Your task to perform on an android device: toggle location history Image 0: 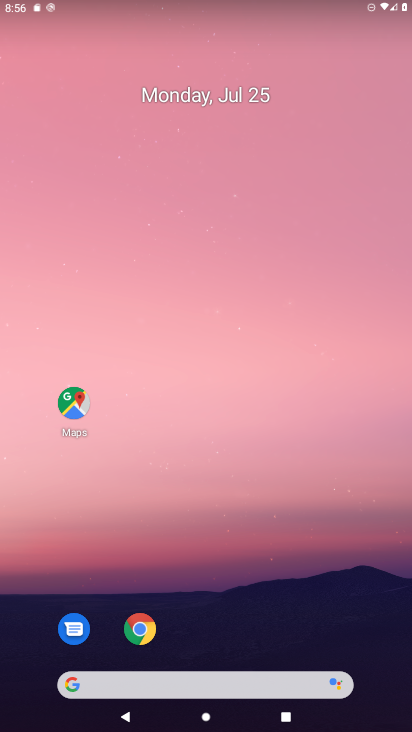
Step 0: click (69, 410)
Your task to perform on an android device: toggle location history Image 1: 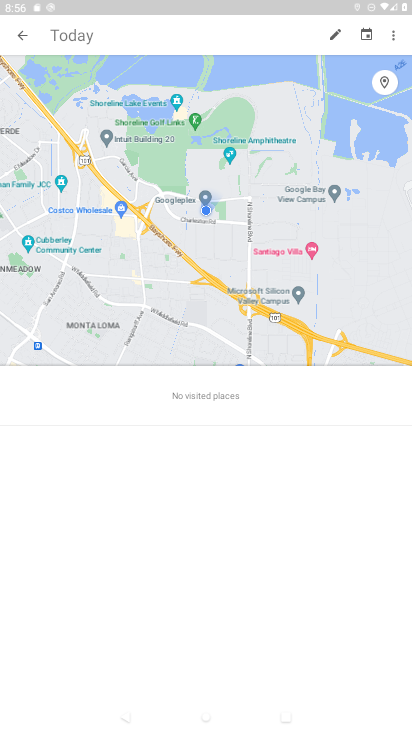
Step 1: click (394, 39)
Your task to perform on an android device: toggle location history Image 2: 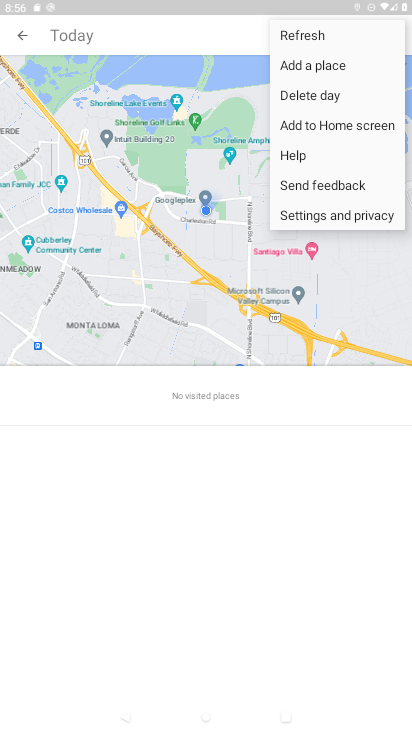
Step 2: click (315, 215)
Your task to perform on an android device: toggle location history Image 3: 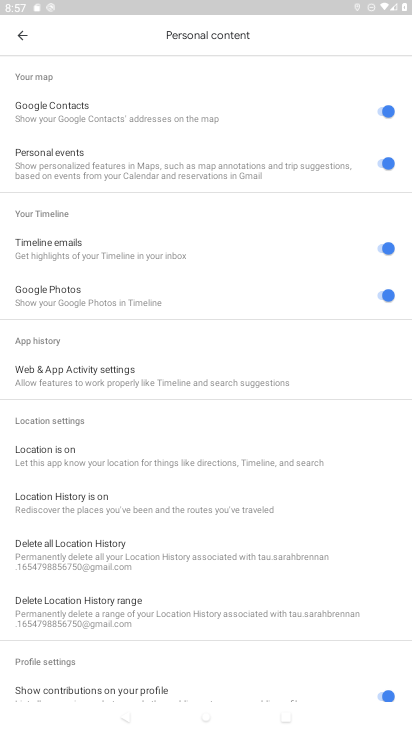
Step 3: click (83, 502)
Your task to perform on an android device: toggle location history Image 4: 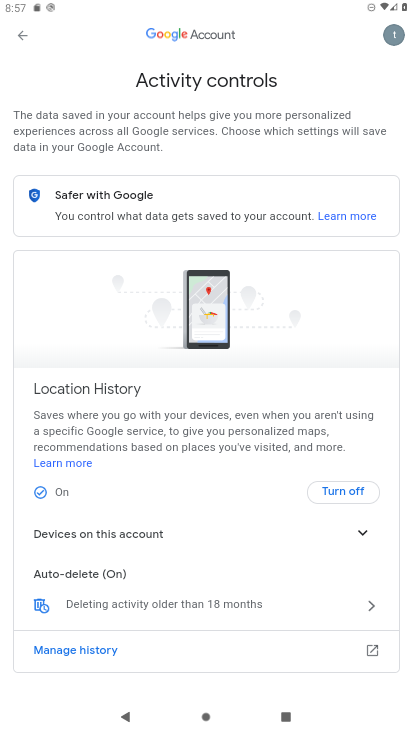
Step 4: click (332, 486)
Your task to perform on an android device: toggle location history Image 5: 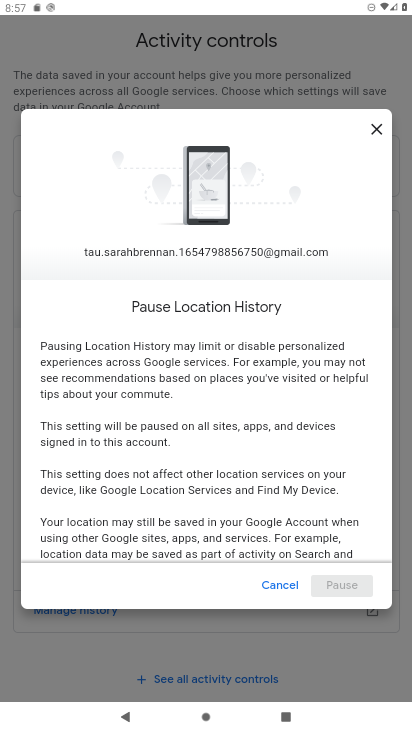
Step 5: drag from (306, 509) to (301, 171)
Your task to perform on an android device: toggle location history Image 6: 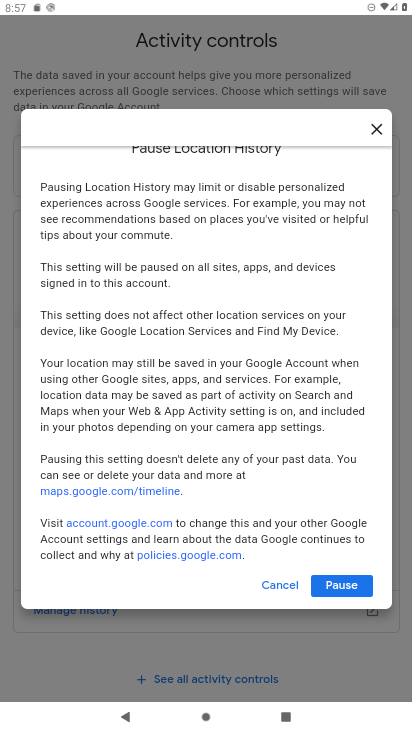
Step 6: drag from (221, 500) to (243, 301)
Your task to perform on an android device: toggle location history Image 7: 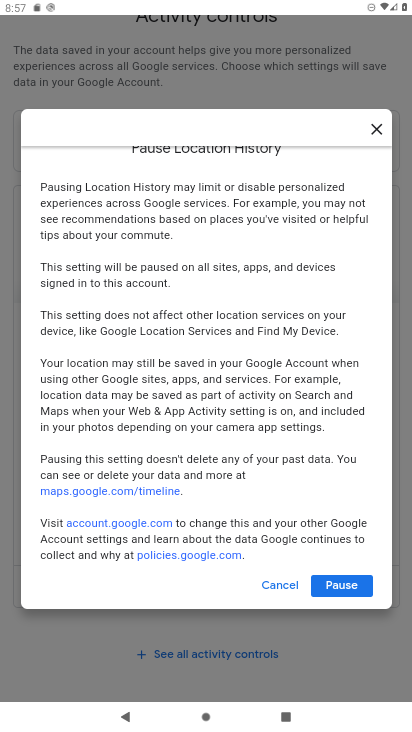
Step 7: click (326, 583)
Your task to perform on an android device: toggle location history Image 8: 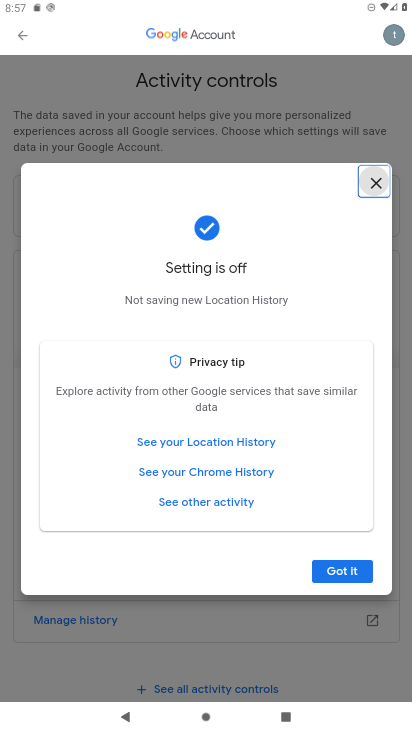
Step 8: click (347, 576)
Your task to perform on an android device: toggle location history Image 9: 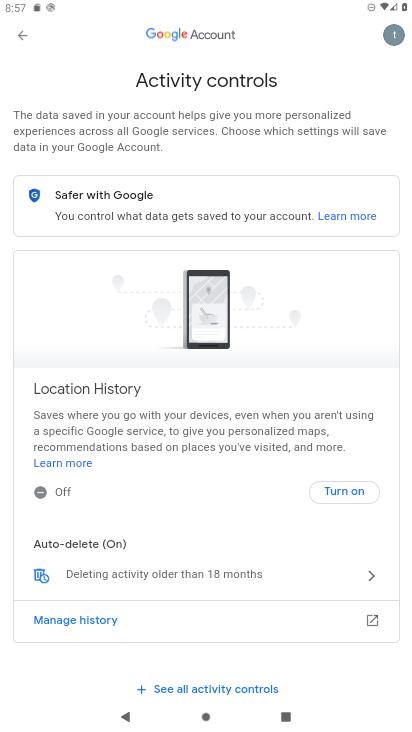
Step 9: task complete